Your task to perform on an android device: Open Wikipedia Image 0: 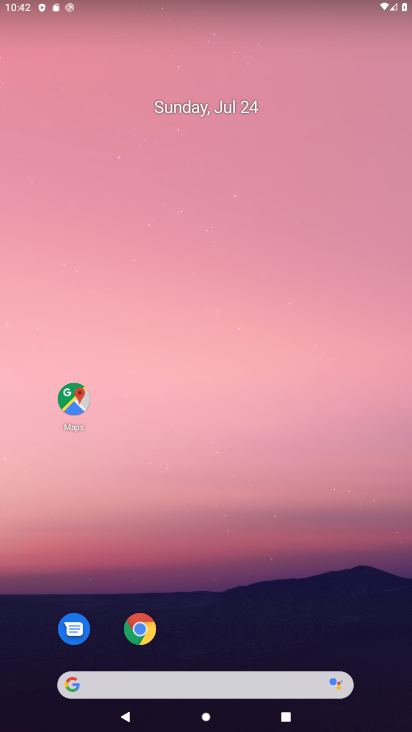
Step 0: click (140, 621)
Your task to perform on an android device: Open Wikipedia Image 1: 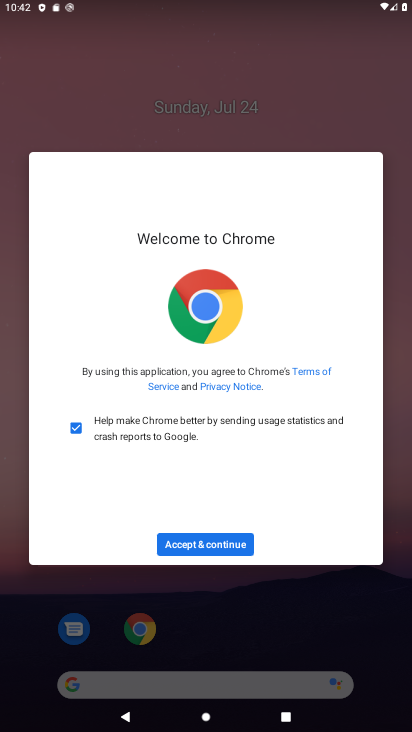
Step 1: click (222, 544)
Your task to perform on an android device: Open Wikipedia Image 2: 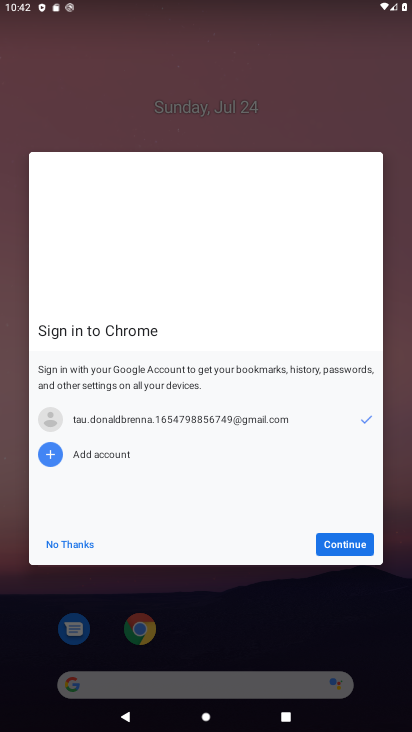
Step 2: click (222, 544)
Your task to perform on an android device: Open Wikipedia Image 3: 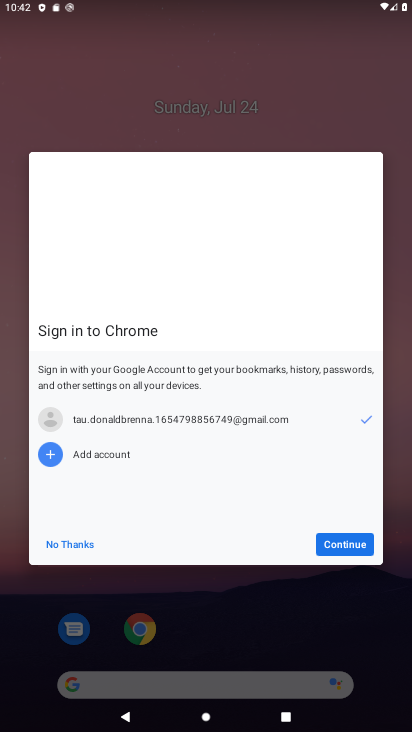
Step 3: click (352, 542)
Your task to perform on an android device: Open Wikipedia Image 4: 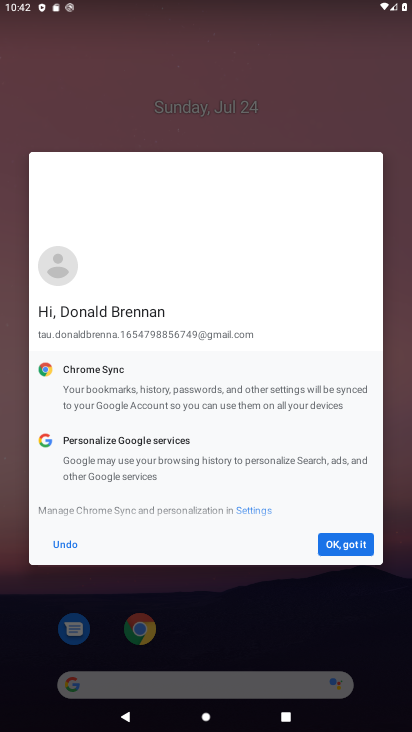
Step 4: click (352, 542)
Your task to perform on an android device: Open Wikipedia Image 5: 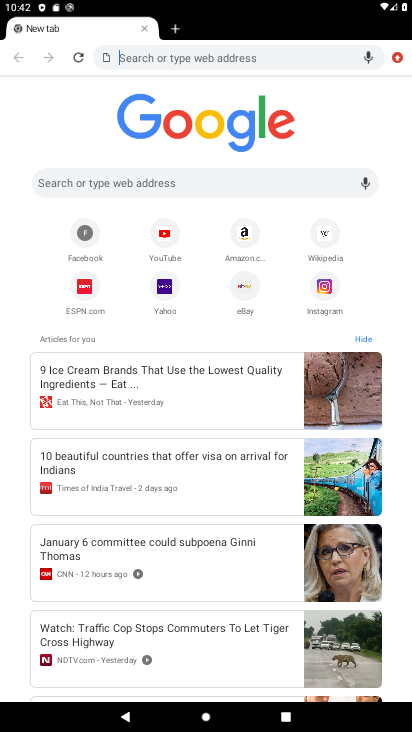
Step 5: click (325, 228)
Your task to perform on an android device: Open Wikipedia Image 6: 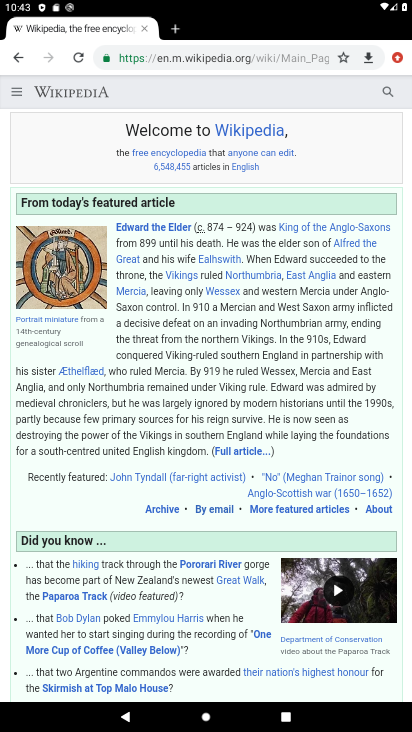
Step 6: task complete